Your task to perform on an android device: Open Maps and search for coffee Image 0: 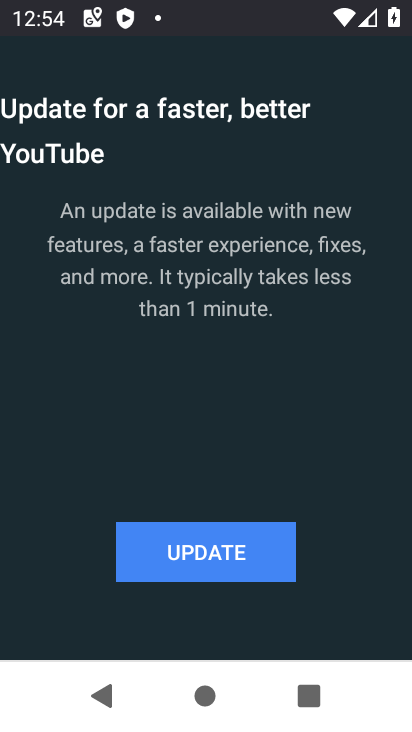
Step 0: press home button
Your task to perform on an android device: Open Maps and search for coffee Image 1: 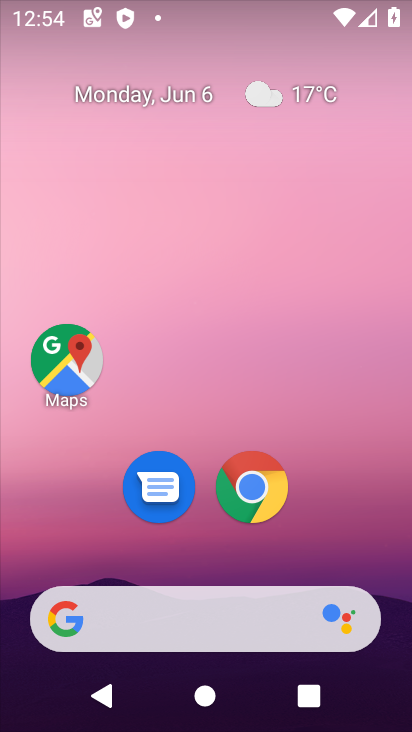
Step 1: click (51, 372)
Your task to perform on an android device: Open Maps and search for coffee Image 2: 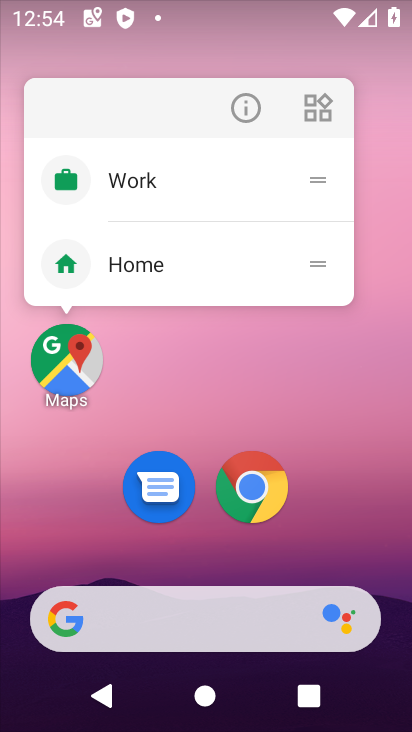
Step 2: click (65, 364)
Your task to perform on an android device: Open Maps and search for coffee Image 3: 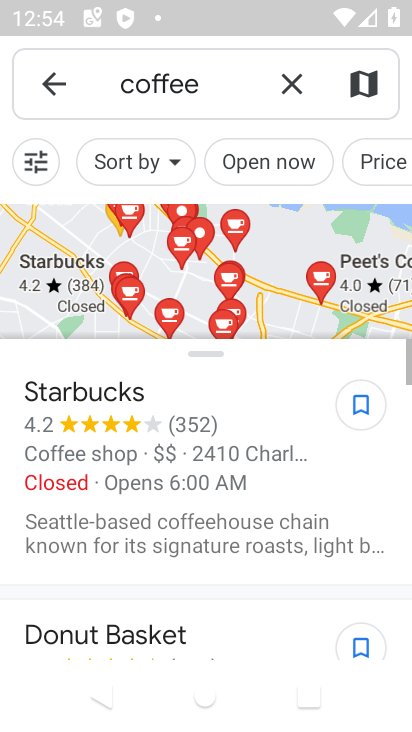
Step 3: task complete